Your task to perform on an android device: Find coffee shops on Maps Image 0: 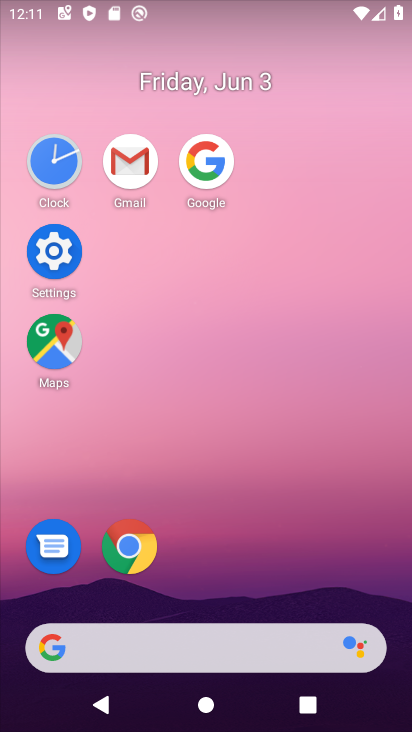
Step 0: click (68, 350)
Your task to perform on an android device: Find coffee shops on Maps Image 1: 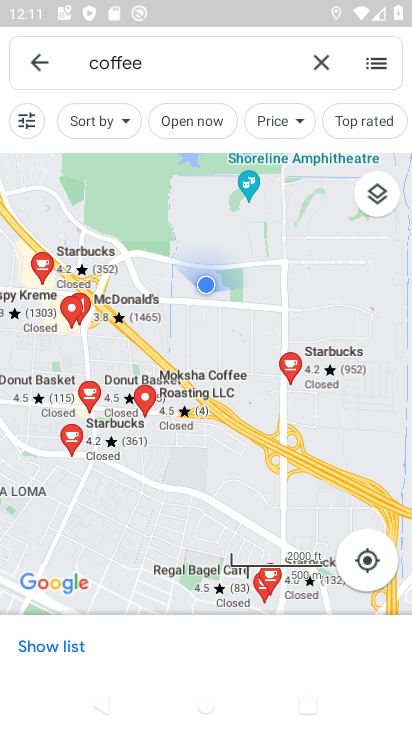
Step 1: task complete